Your task to perform on an android device: What is the news today? Image 0: 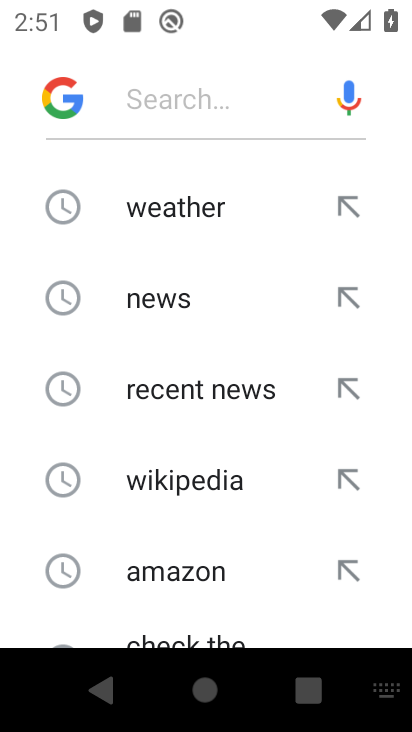
Step 0: press home button
Your task to perform on an android device: What is the news today? Image 1: 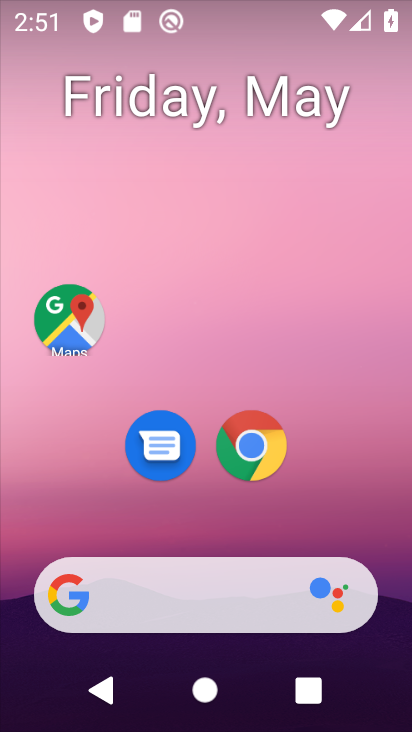
Step 1: drag from (162, 567) to (278, 249)
Your task to perform on an android device: What is the news today? Image 2: 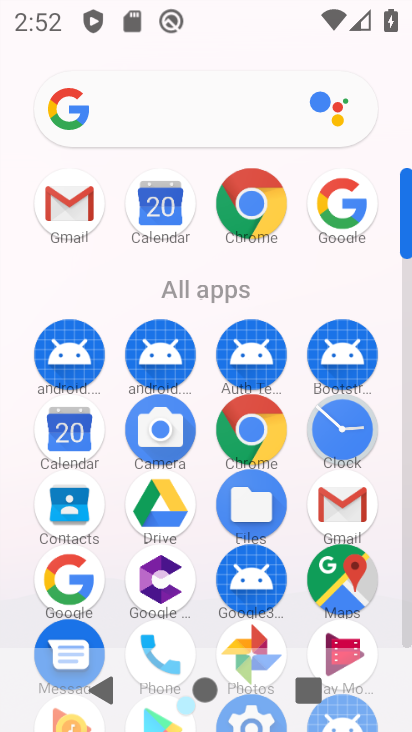
Step 2: click (66, 576)
Your task to perform on an android device: What is the news today? Image 3: 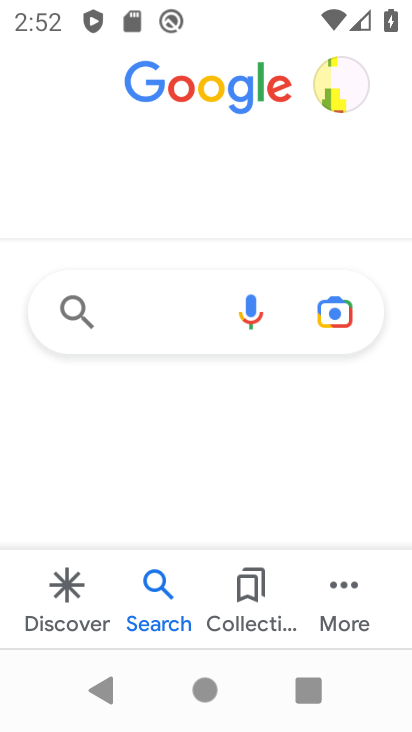
Step 3: click (140, 319)
Your task to perform on an android device: What is the news today? Image 4: 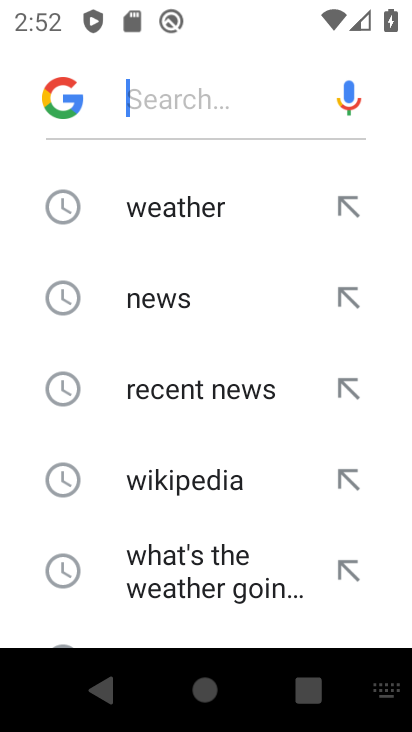
Step 4: click (196, 294)
Your task to perform on an android device: What is the news today? Image 5: 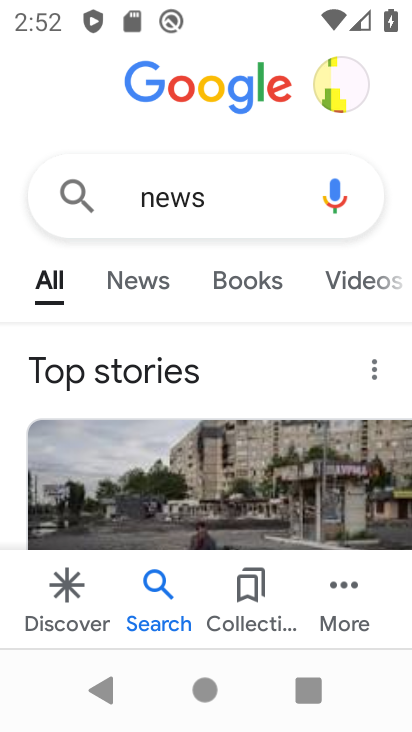
Step 5: click (152, 283)
Your task to perform on an android device: What is the news today? Image 6: 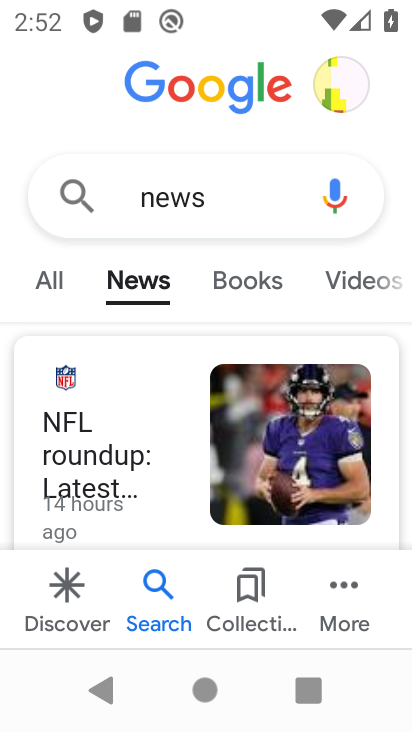
Step 6: task complete